Your task to perform on an android device: Open calendar and show me the fourth week of next month Image 0: 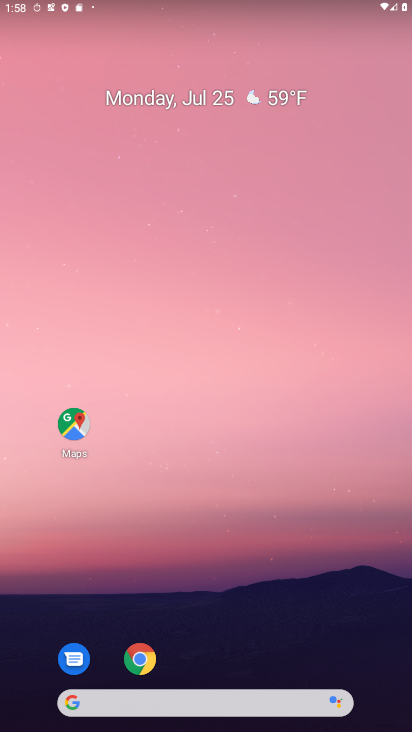
Step 0: drag from (267, 659) to (279, 2)
Your task to perform on an android device: Open calendar and show me the fourth week of next month Image 1: 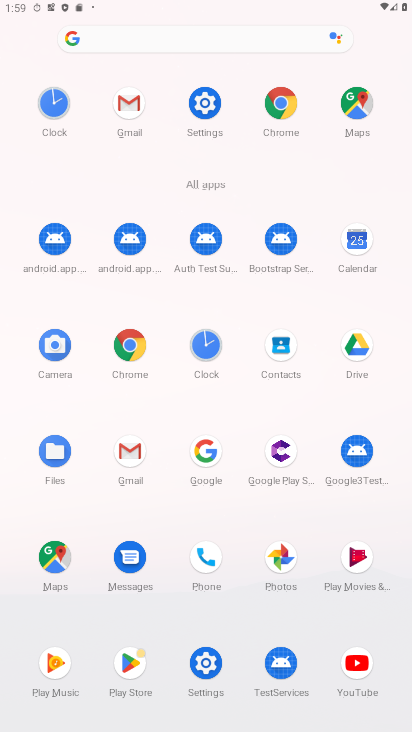
Step 1: click (361, 241)
Your task to perform on an android device: Open calendar and show me the fourth week of next month Image 2: 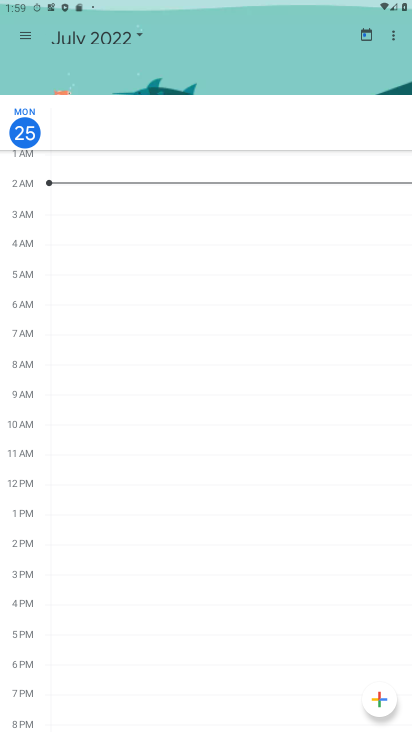
Step 2: click (139, 29)
Your task to perform on an android device: Open calendar and show me the fourth week of next month Image 3: 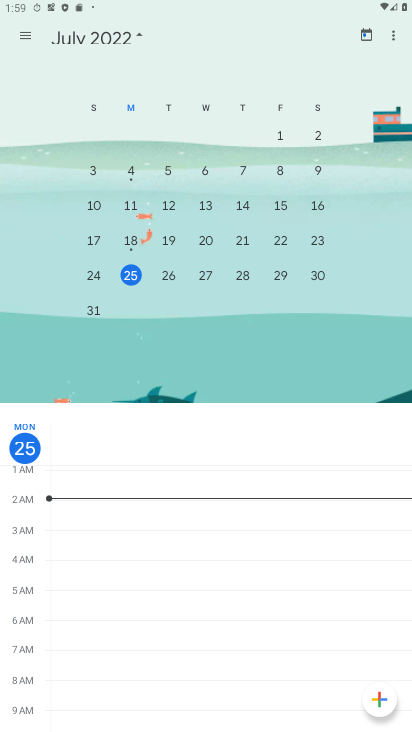
Step 3: drag from (328, 239) to (63, 204)
Your task to perform on an android device: Open calendar and show me the fourth week of next month Image 4: 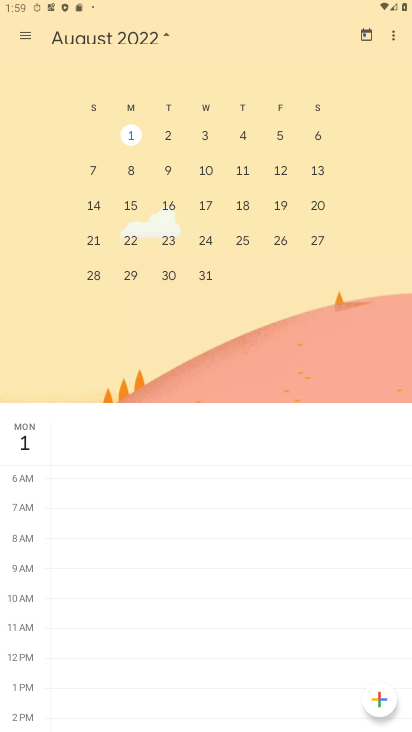
Step 4: drag from (238, 491) to (222, 26)
Your task to perform on an android device: Open calendar and show me the fourth week of next month Image 5: 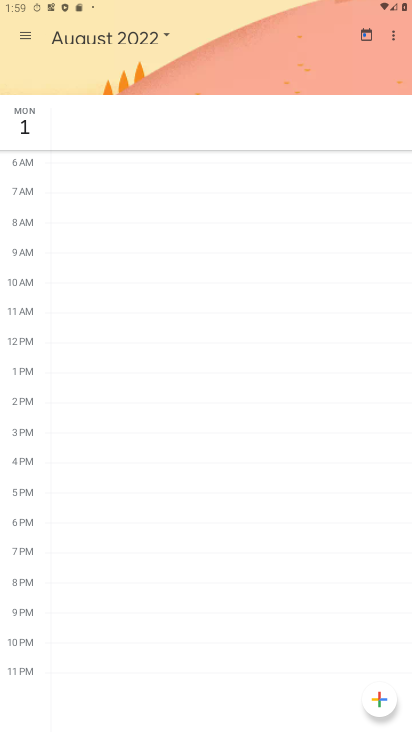
Step 5: drag from (239, 445) to (239, 43)
Your task to perform on an android device: Open calendar and show me the fourth week of next month Image 6: 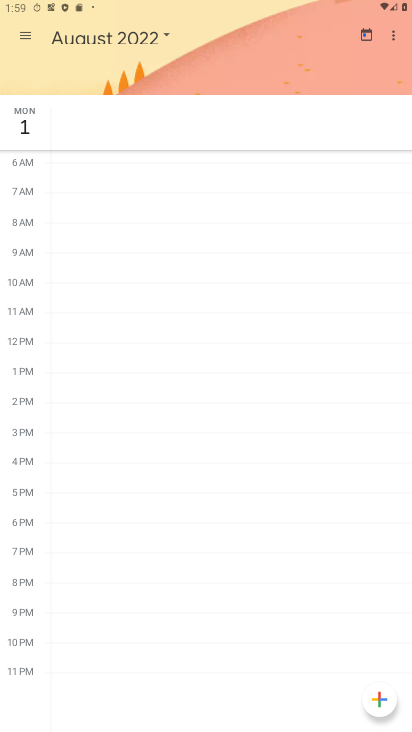
Step 6: click (29, 36)
Your task to perform on an android device: Open calendar and show me the fourth week of next month Image 7: 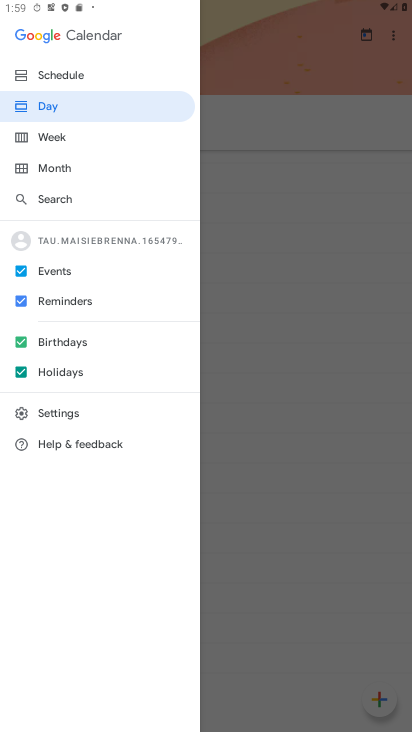
Step 7: click (34, 134)
Your task to perform on an android device: Open calendar and show me the fourth week of next month Image 8: 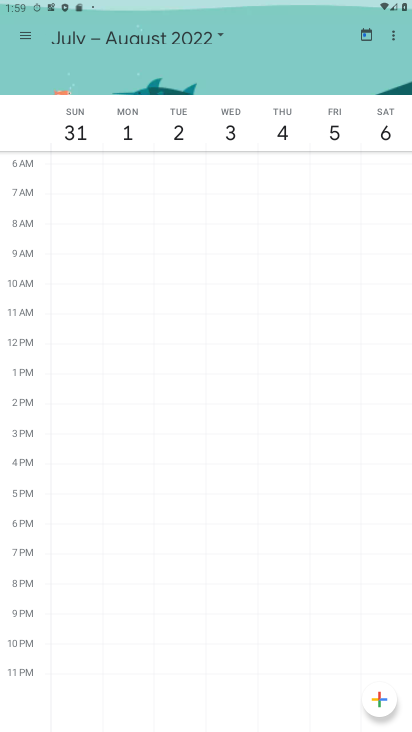
Step 8: task complete